Your task to perform on an android device: Check the weather Image 0: 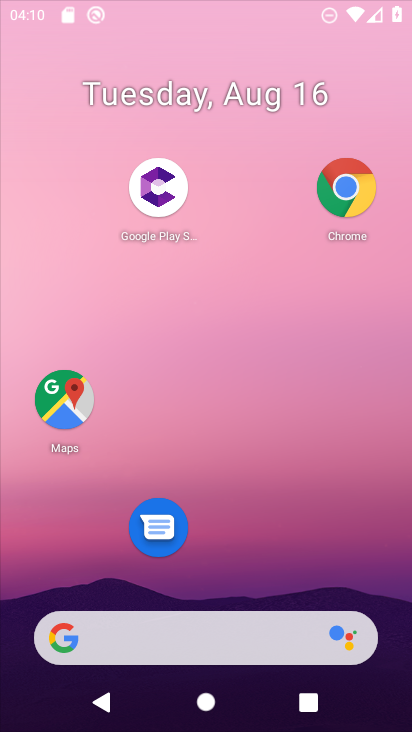
Step 0: press home button
Your task to perform on an android device: Check the weather Image 1: 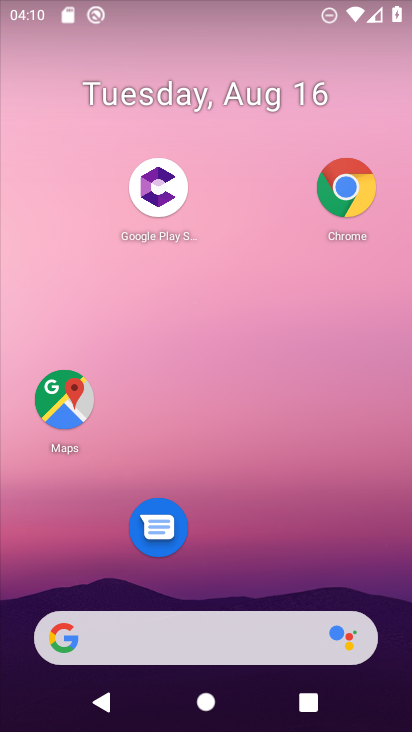
Step 1: drag from (230, 578) to (240, 42)
Your task to perform on an android device: Check the weather Image 2: 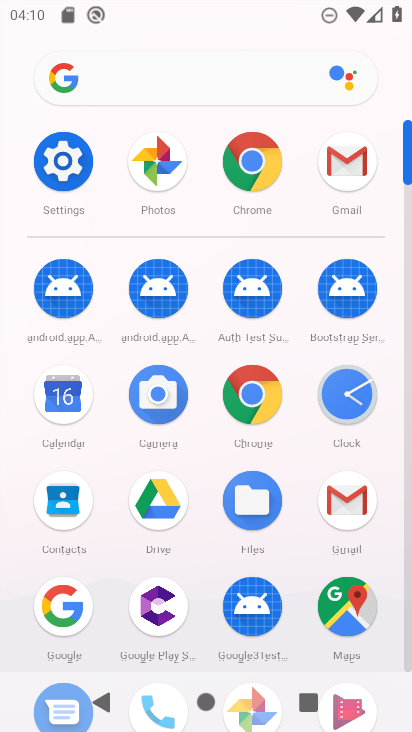
Step 2: click (144, 79)
Your task to perform on an android device: Check the weather Image 3: 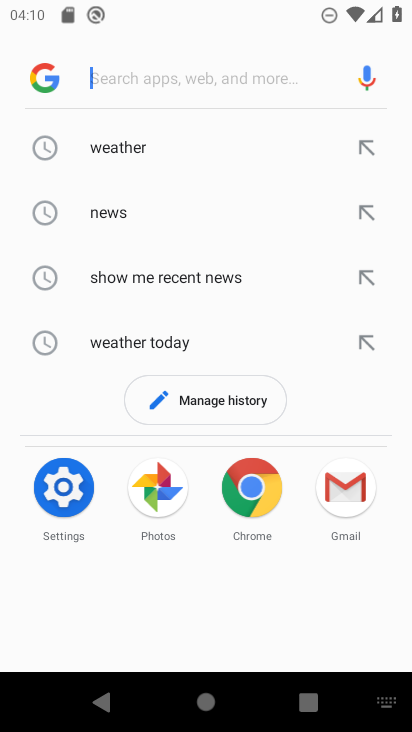
Step 3: click (157, 141)
Your task to perform on an android device: Check the weather Image 4: 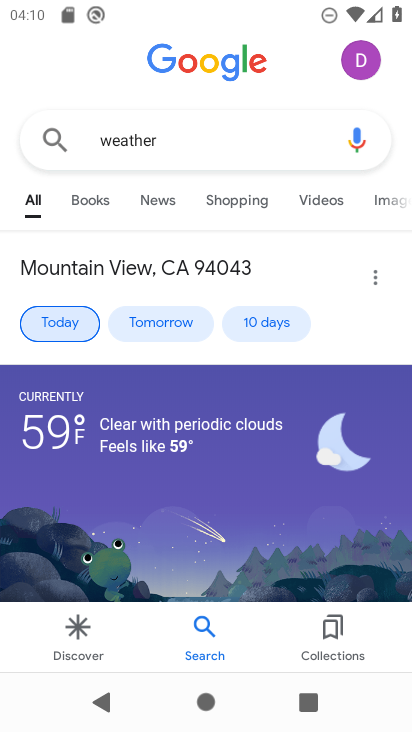
Step 4: task complete